Your task to perform on an android device: Open location settings Image 0: 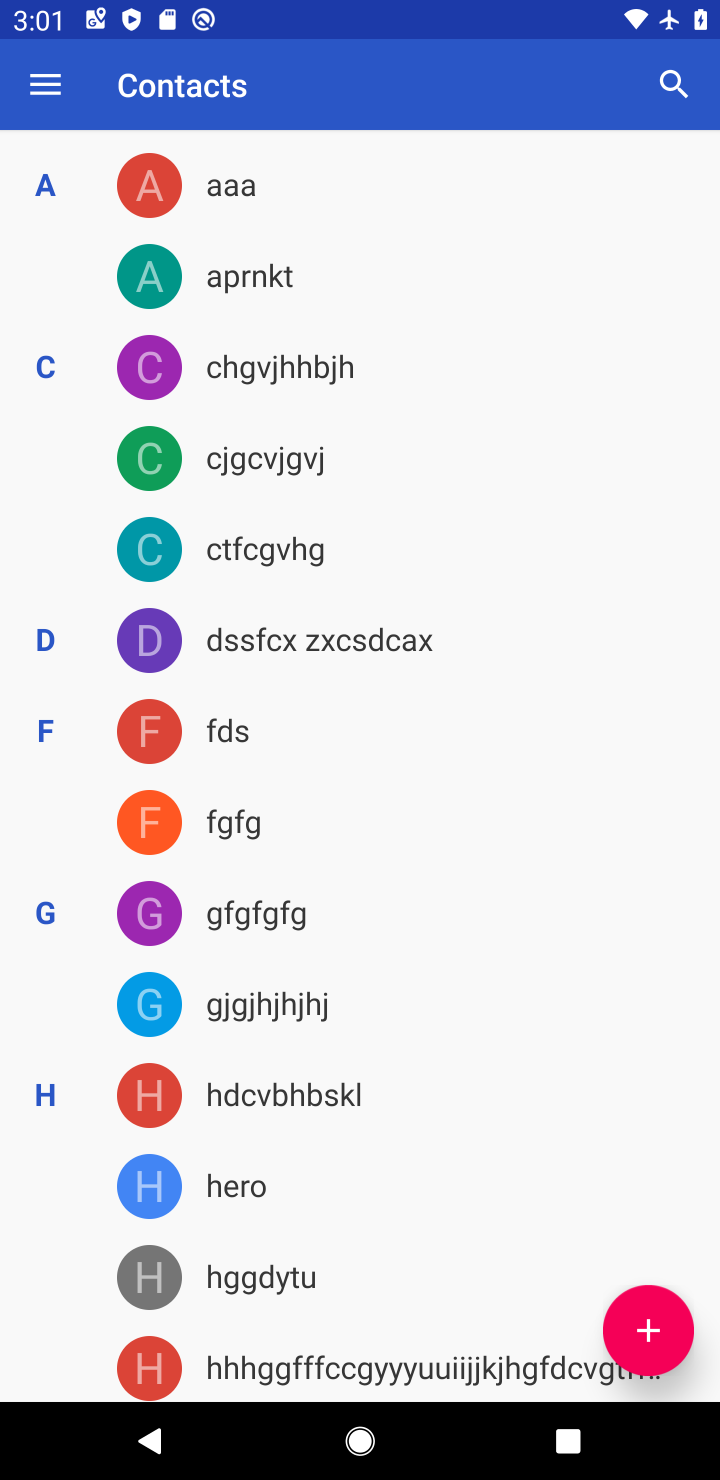
Step 0: press home button
Your task to perform on an android device: Open location settings Image 1: 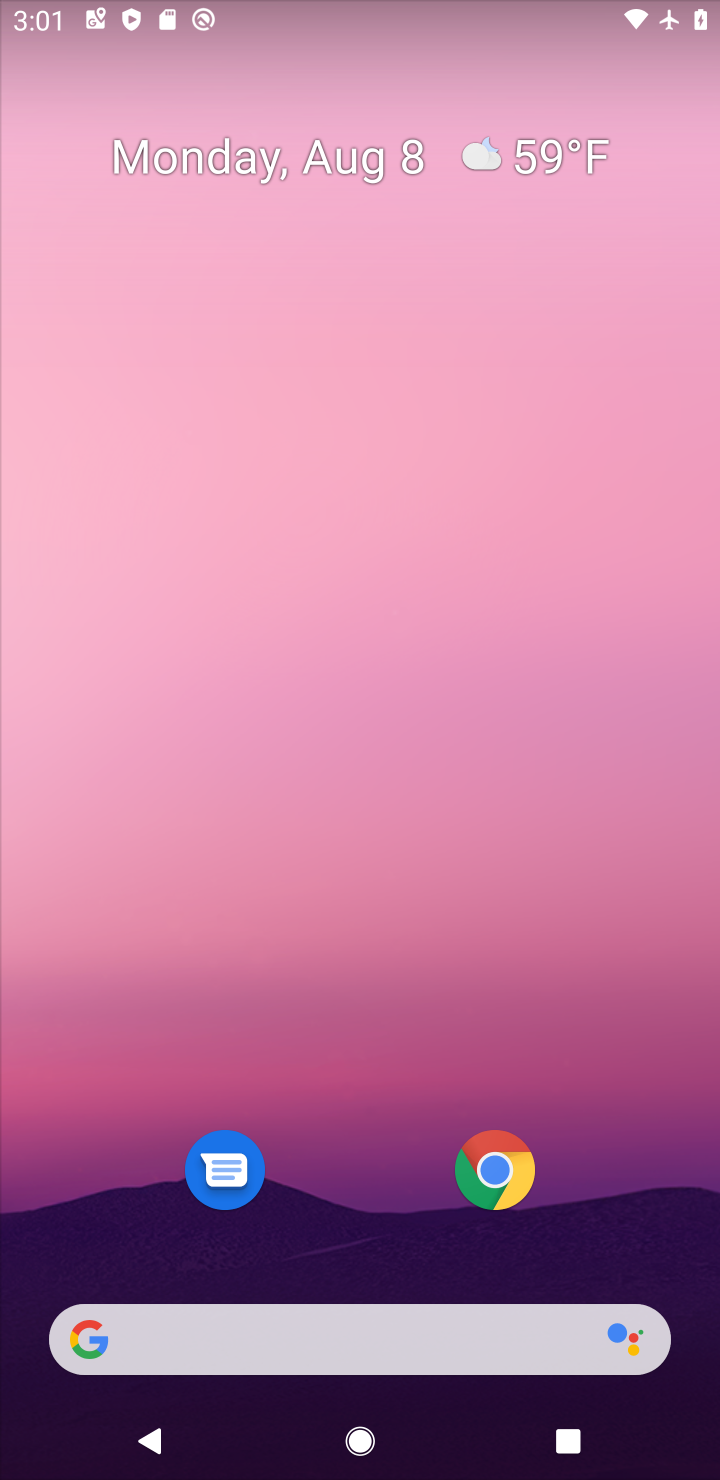
Step 1: drag from (323, 1105) to (360, 262)
Your task to perform on an android device: Open location settings Image 2: 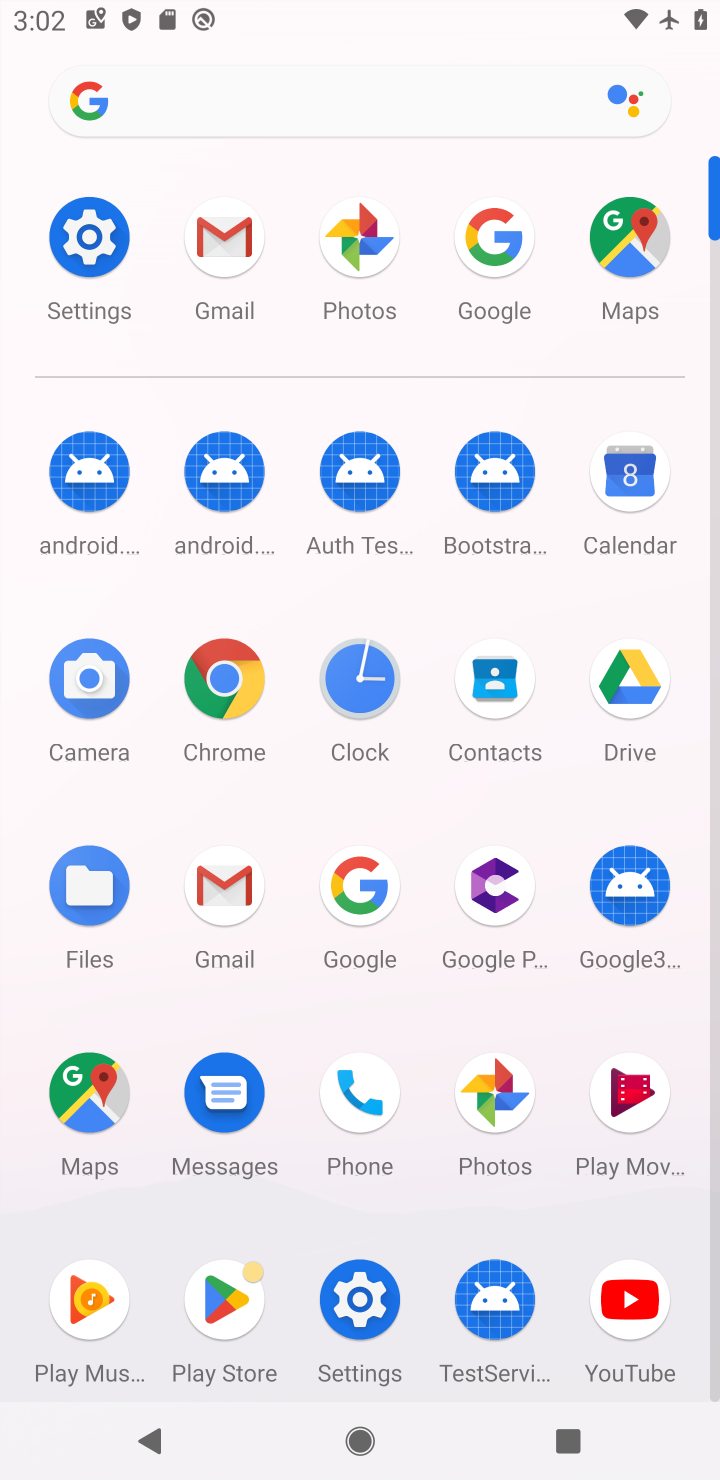
Step 2: click (85, 281)
Your task to perform on an android device: Open location settings Image 3: 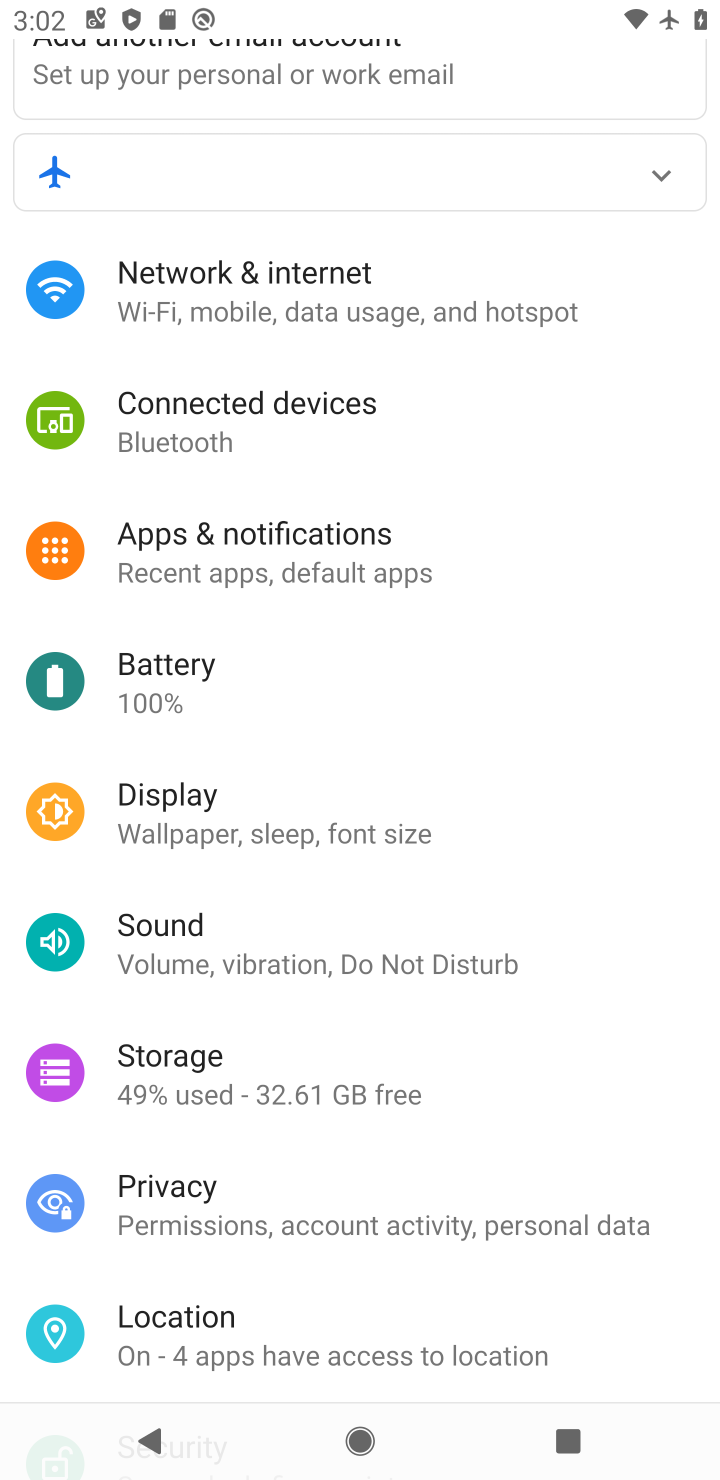
Step 3: click (266, 1303)
Your task to perform on an android device: Open location settings Image 4: 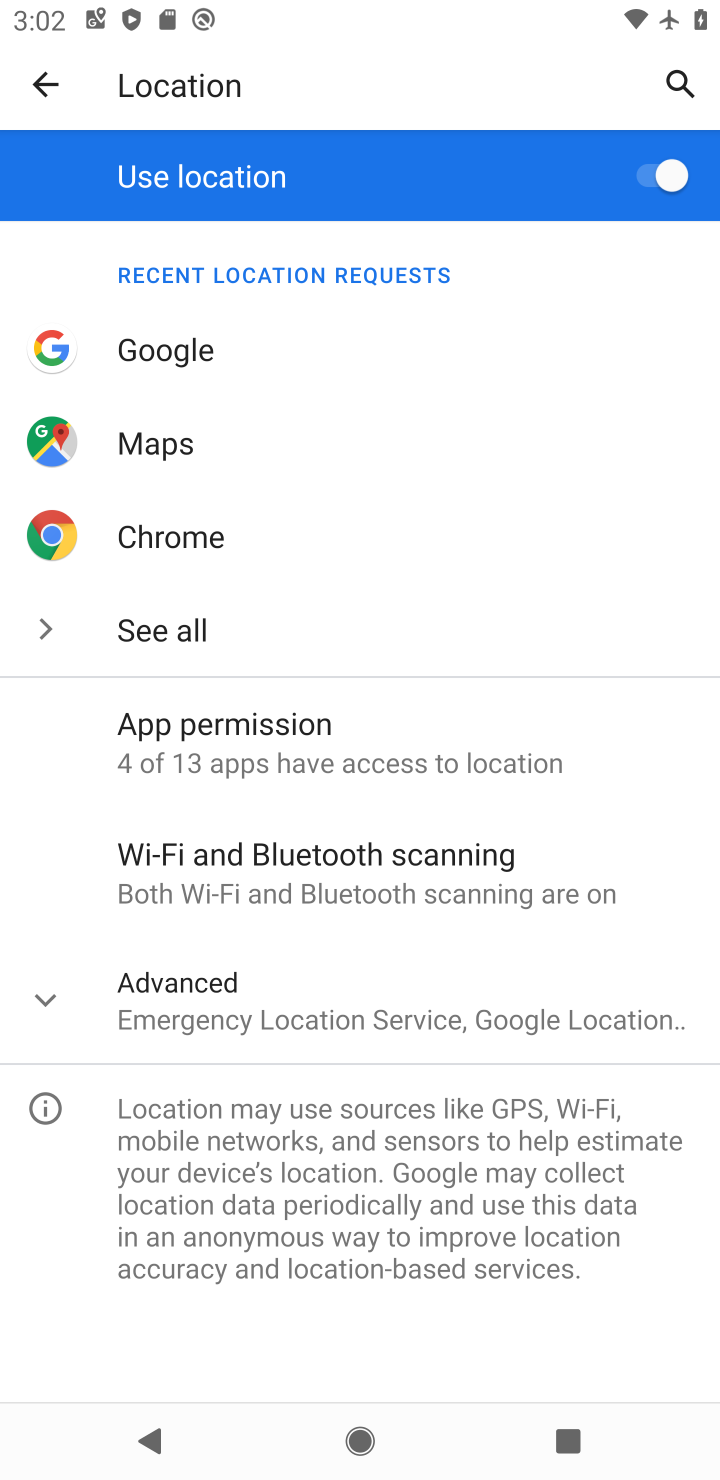
Step 4: task complete